Your task to perform on an android device: Open the stopwatch Image 0: 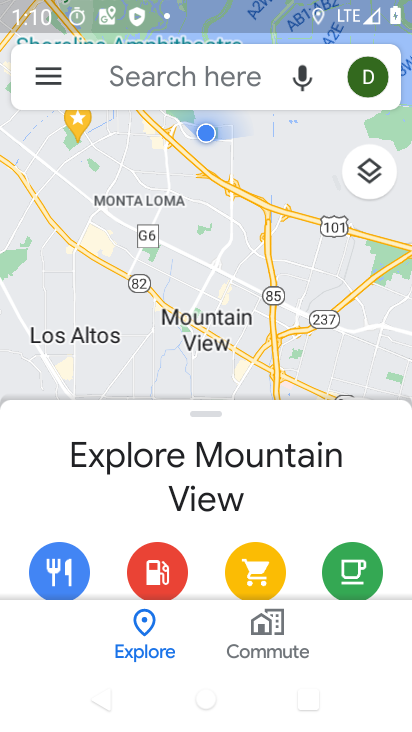
Step 0: press home button
Your task to perform on an android device: Open the stopwatch Image 1: 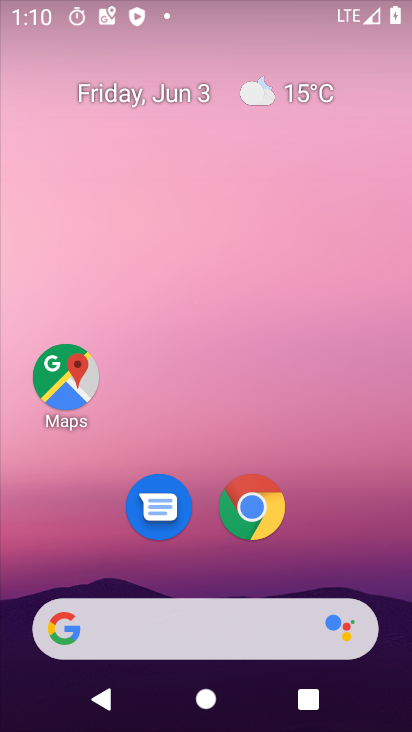
Step 1: click (396, 611)
Your task to perform on an android device: Open the stopwatch Image 2: 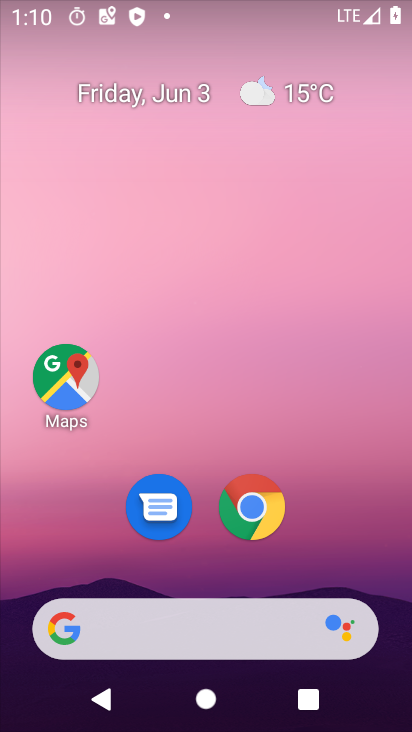
Step 2: click (348, 71)
Your task to perform on an android device: Open the stopwatch Image 3: 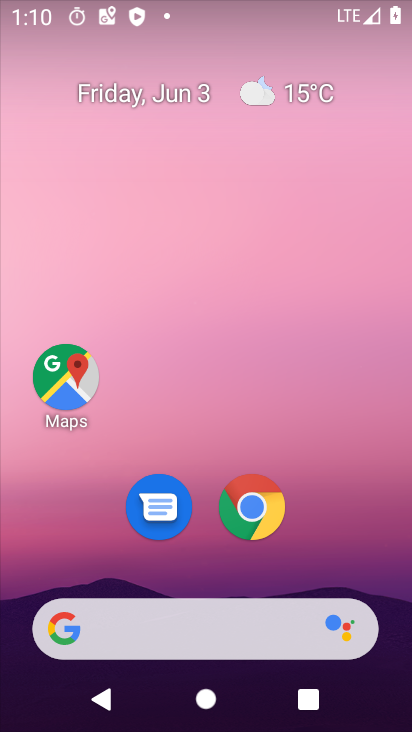
Step 3: drag from (381, 444) to (297, 25)
Your task to perform on an android device: Open the stopwatch Image 4: 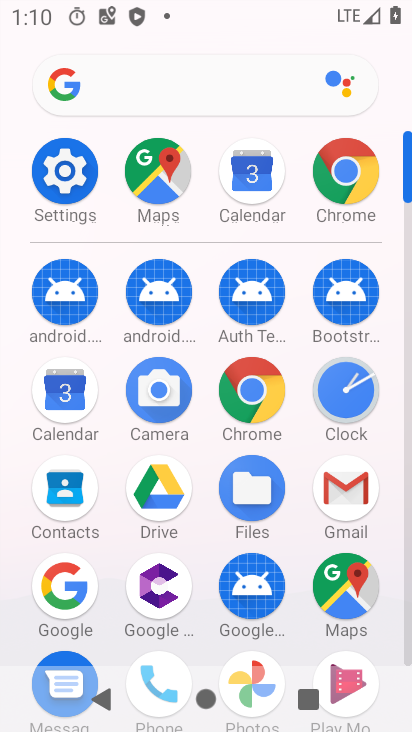
Step 4: click (339, 422)
Your task to perform on an android device: Open the stopwatch Image 5: 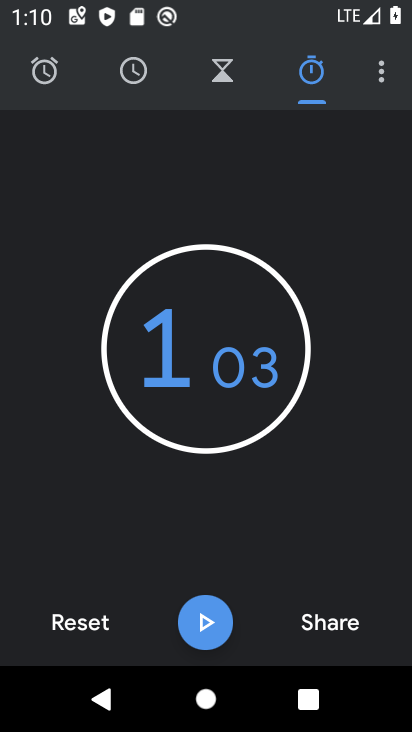
Step 5: task complete